Your task to perform on an android device: turn off priority inbox in the gmail app Image 0: 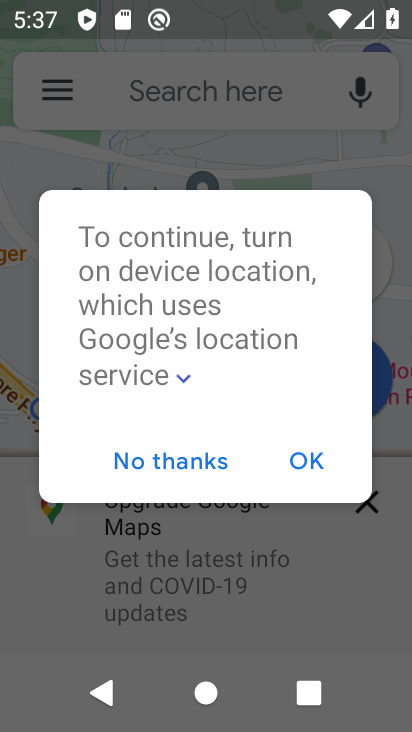
Step 0: press home button
Your task to perform on an android device: turn off priority inbox in the gmail app Image 1: 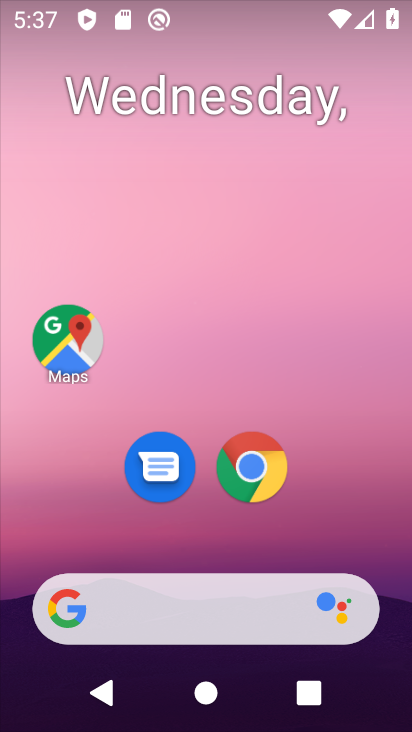
Step 1: drag from (352, 505) to (336, 61)
Your task to perform on an android device: turn off priority inbox in the gmail app Image 2: 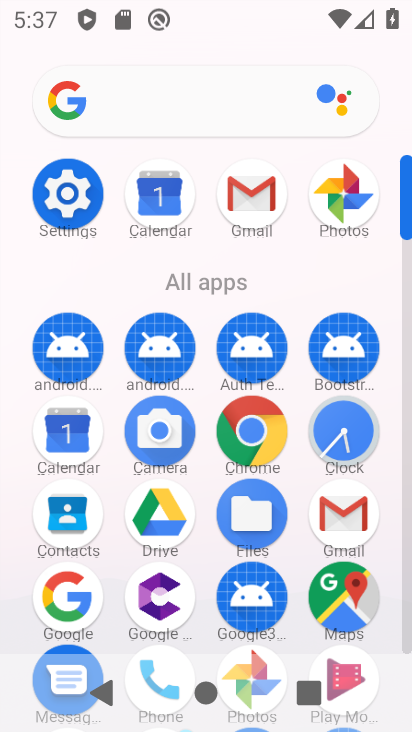
Step 2: click (341, 512)
Your task to perform on an android device: turn off priority inbox in the gmail app Image 3: 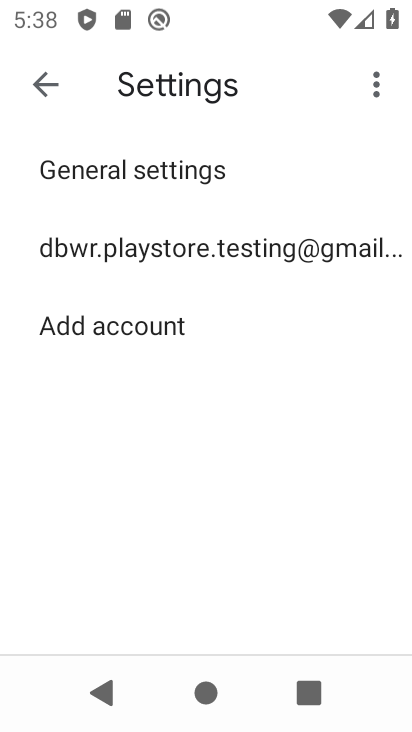
Step 3: click (281, 254)
Your task to perform on an android device: turn off priority inbox in the gmail app Image 4: 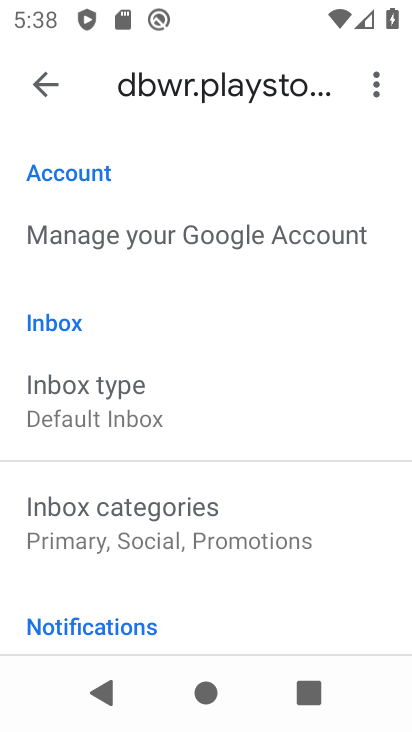
Step 4: click (109, 395)
Your task to perform on an android device: turn off priority inbox in the gmail app Image 5: 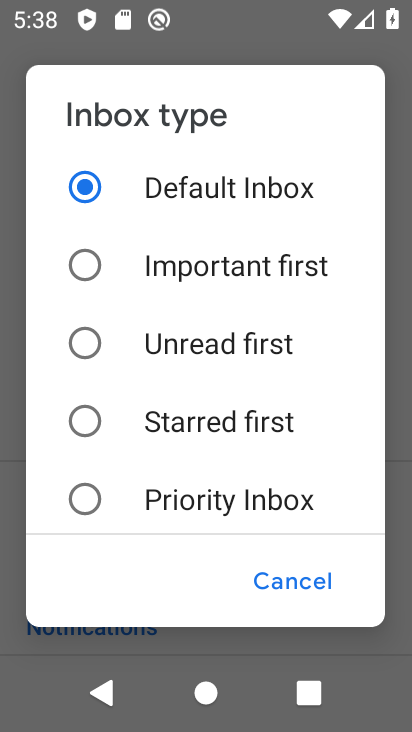
Step 5: task complete